Your task to perform on an android device: choose inbox layout in the gmail app Image 0: 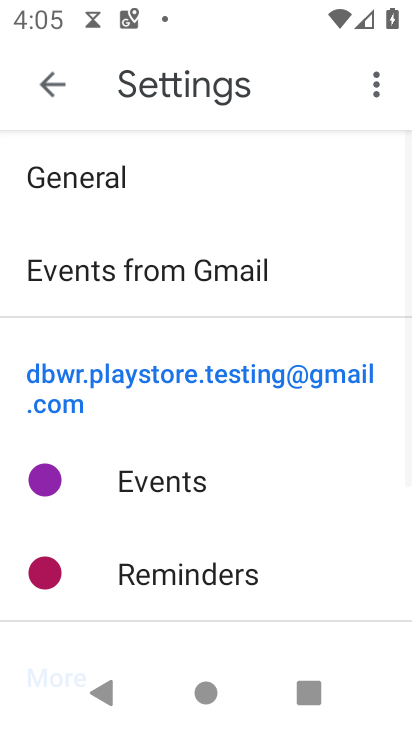
Step 0: press home button
Your task to perform on an android device: choose inbox layout in the gmail app Image 1: 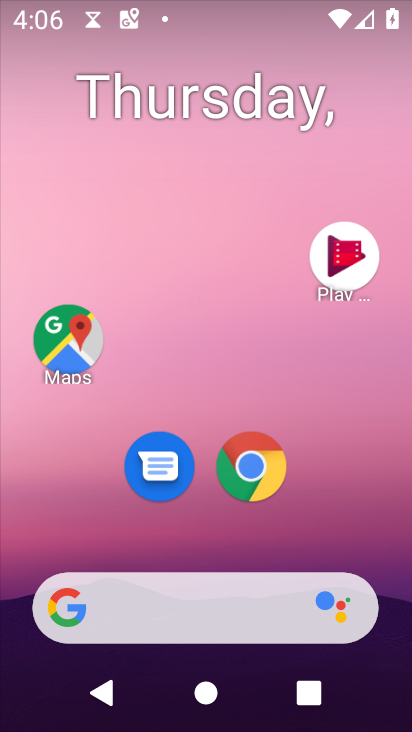
Step 1: drag from (338, 638) to (377, 9)
Your task to perform on an android device: choose inbox layout in the gmail app Image 2: 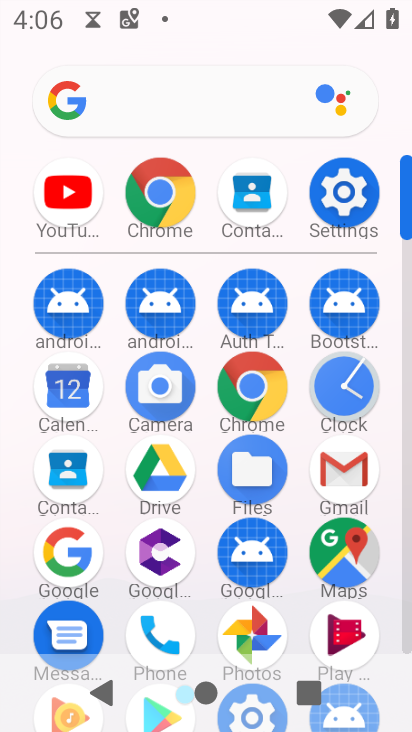
Step 2: click (362, 482)
Your task to perform on an android device: choose inbox layout in the gmail app Image 3: 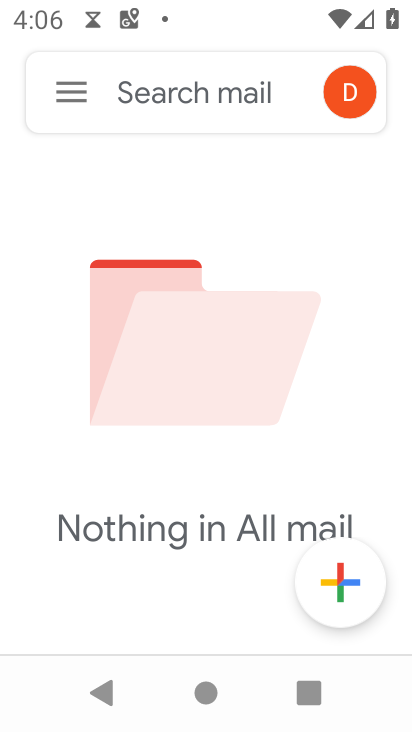
Step 3: click (58, 80)
Your task to perform on an android device: choose inbox layout in the gmail app Image 4: 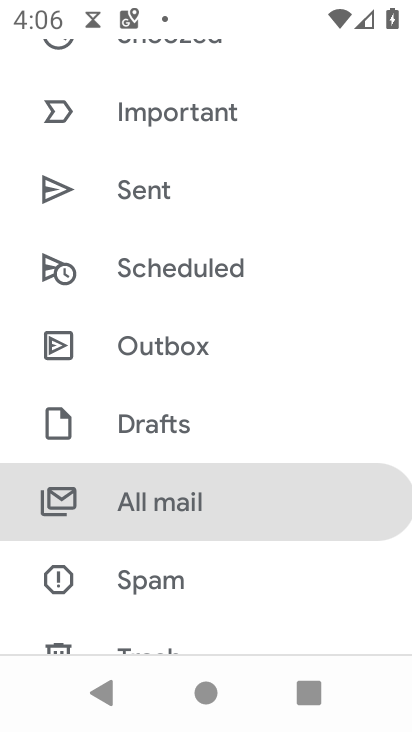
Step 4: drag from (174, 597) to (245, 0)
Your task to perform on an android device: choose inbox layout in the gmail app Image 5: 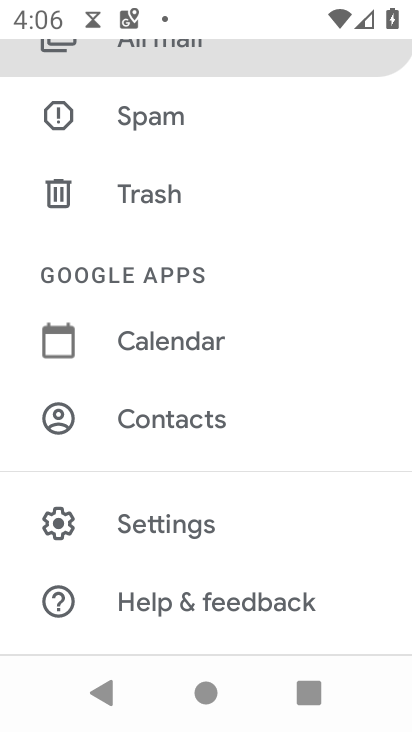
Step 5: click (198, 537)
Your task to perform on an android device: choose inbox layout in the gmail app Image 6: 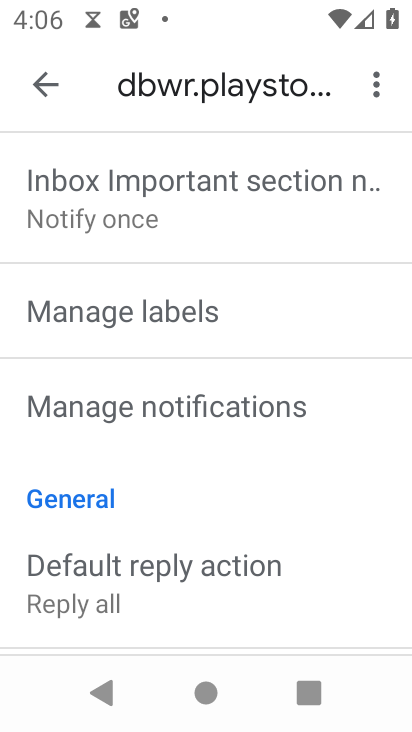
Step 6: drag from (254, 291) to (291, 702)
Your task to perform on an android device: choose inbox layout in the gmail app Image 7: 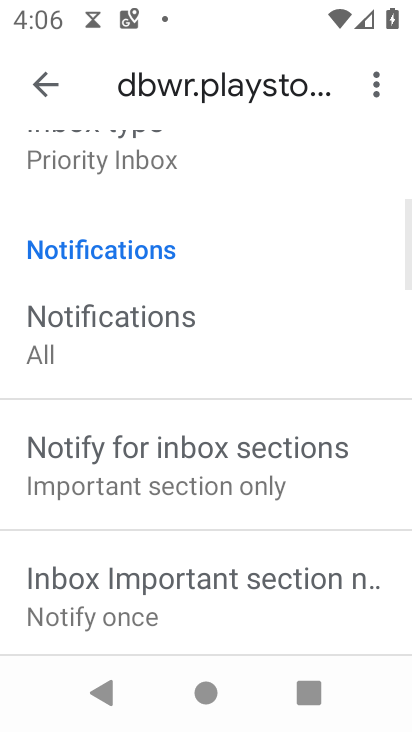
Step 7: drag from (176, 292) to (226, 674)
Your task to perform on an android device: choose inbox layout in the gmail app Image 8: 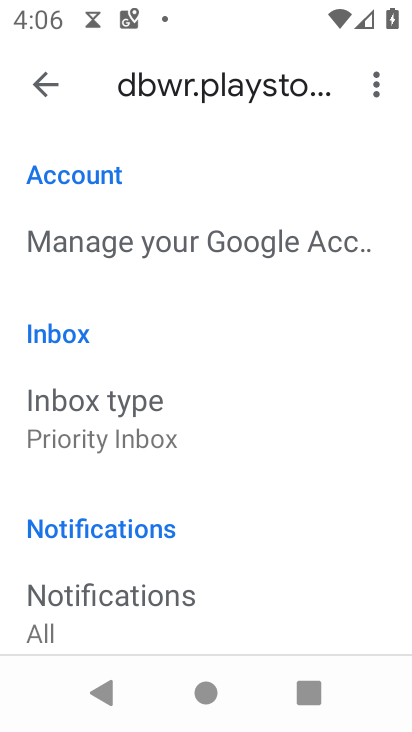
Step 8: click (180, 430)
Your task to perform on an android device: choose inbox layout in the gmail app Image 9: 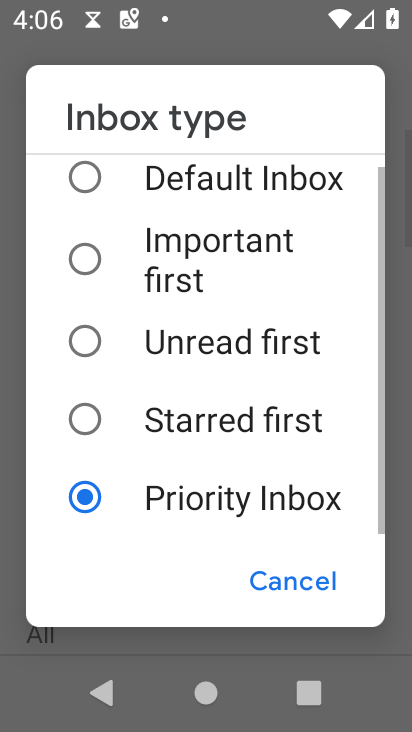
Step 9: click (209, 346)
Your task to perform on an android device: choose inbox layout in the gmail app Image 10: 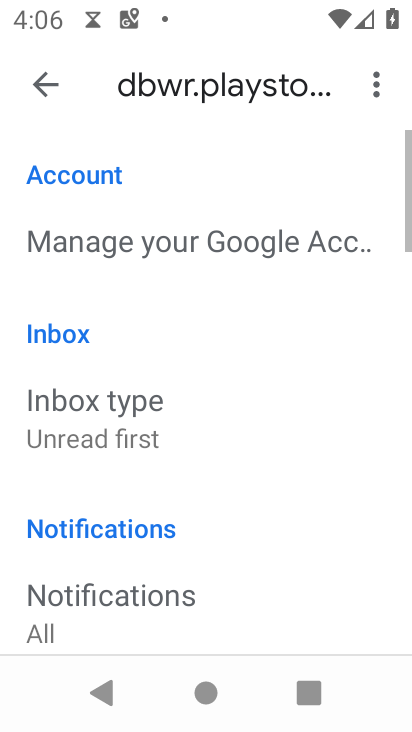
Step 10: task complete